Your task to perform on an android device: Open accessibility settings Image 0: 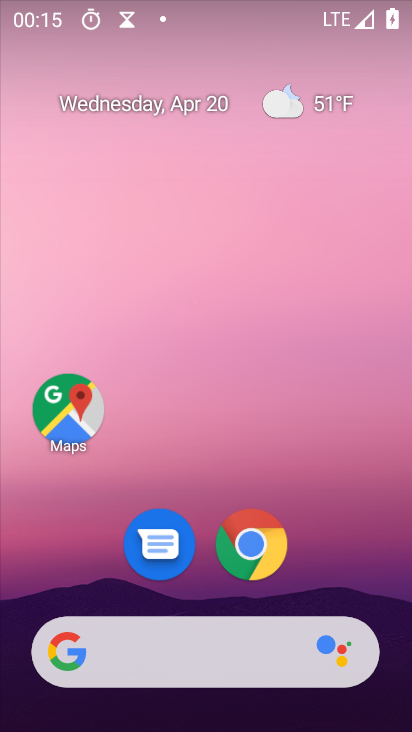
Step 0: drag from (330, 578) to (349, 74)
Your task to perform on an android device: Open accessibility settings Image 1: 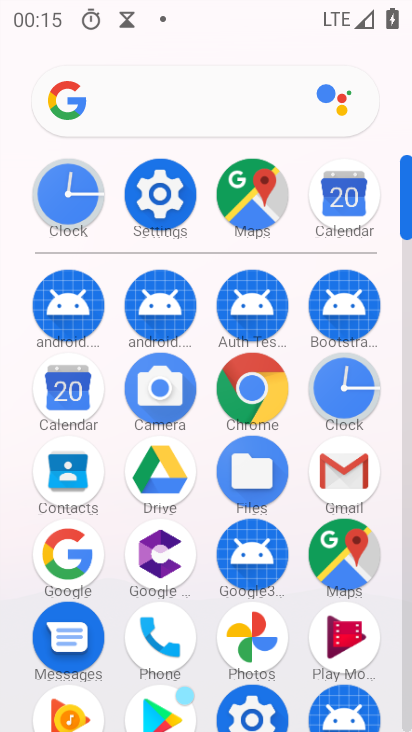
Step 1: click (144, 204)
Your task to perform on an android device: Open accessibility settings Image 2: 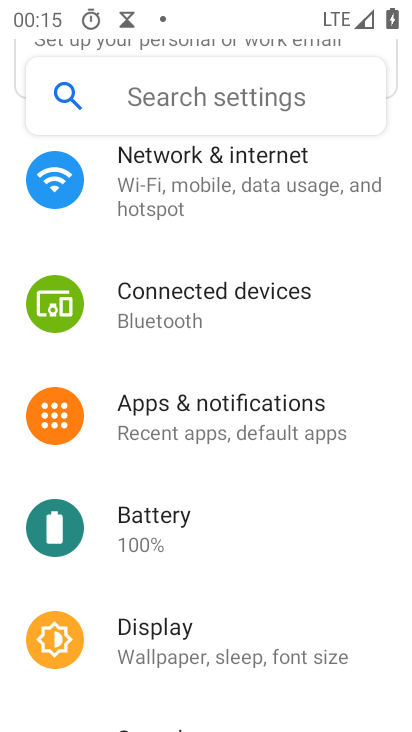
Step 2: drag from (199, 412) to (208, 359)
Your task to perform on an android device: Open accessibility settings Image 3: 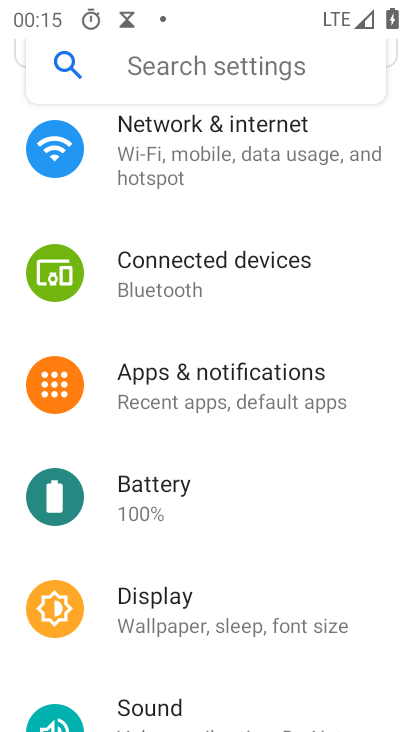
Step 3: drag from (216, 445) to (212, 394)
Your task to perform on an android device: Open accessibility settings Image 4: 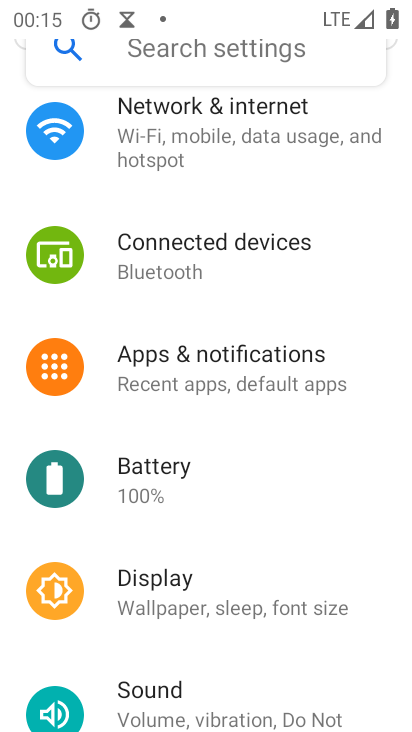
Step 4: drag from (219, 435) to (213, 372)
Your task to perform on an android device: Open accessibility settings Image 5: 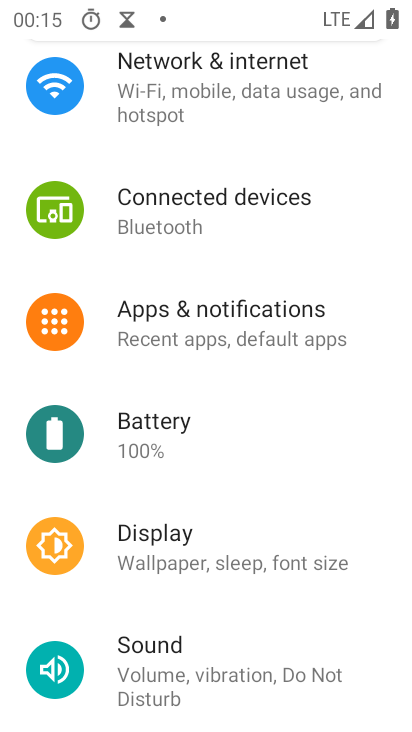
Step 5: drag from (208, 450) to (219, 386)
Your task to perform on an android device: Open accessibility settings Image 6: 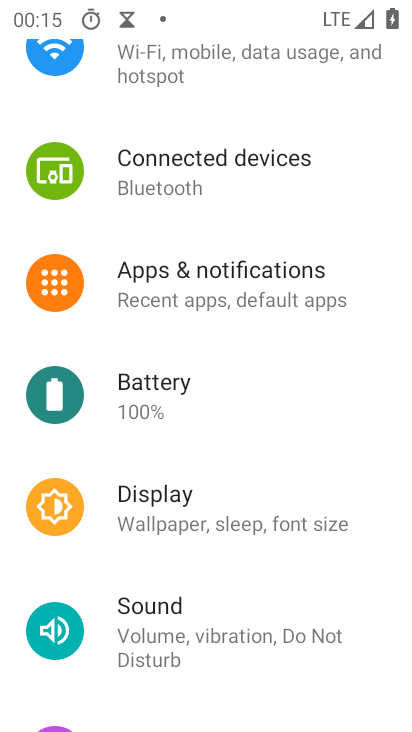
Step 6: drag from (195, 490) to (212, 430)
Your task to perform on an android device: Open accessibility settings Image 7: 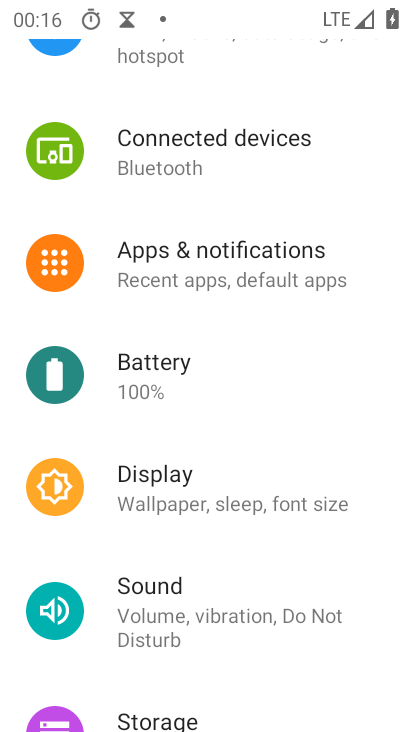
Step 7: drag from (209, 481) to (225, 417)
Your task to perform on an android device: Open accessibility settings Image 8: 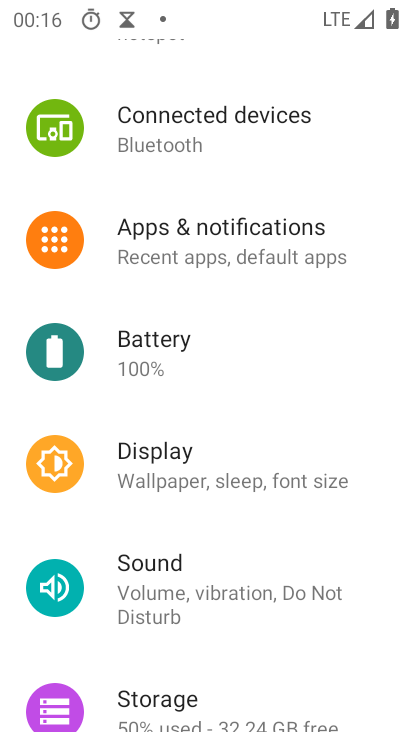
Step 8: drag from (209, 499) to (214, 423)
Your task to perform on an android device: Open accessibility settings Image 9: 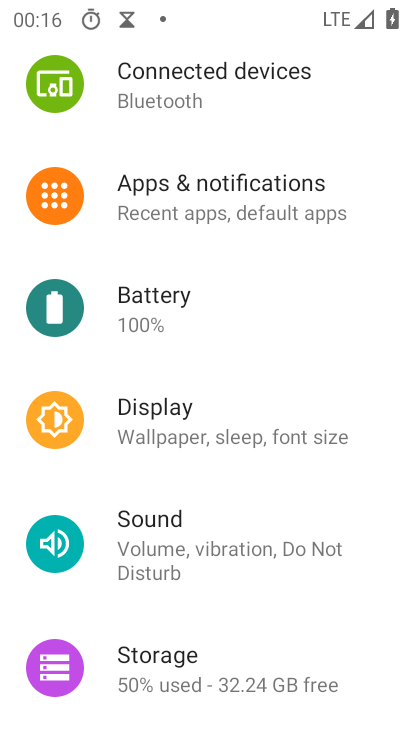
Step 9: drag from (122, 546) to (174, 397)
Your task to perform on an android device: Open accessibility settings Image 10: 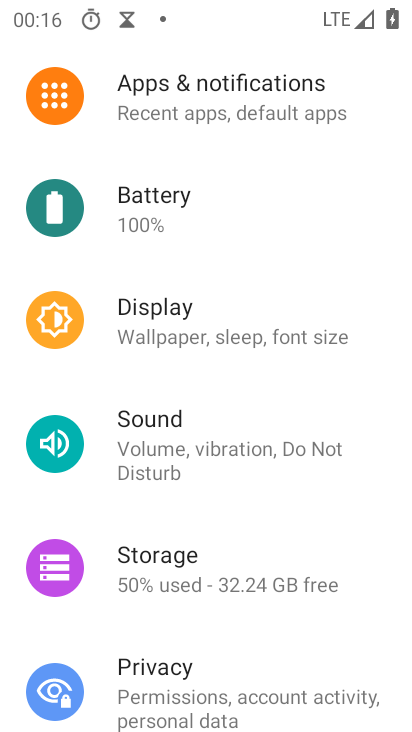
Step 10: drag from (204, 488) to (231, 383)
Your task to perform on an android device: Open accessibility settings Image 11: 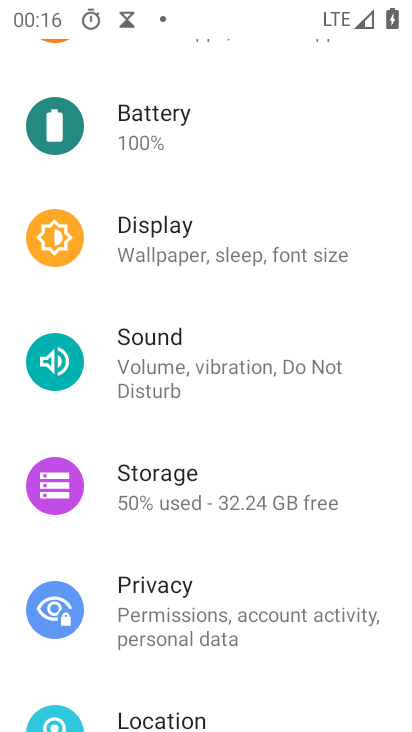
Step 11: drag from (269, 535) to (280, 435)
Your task to perform on an android device: Open accessibility settings Image 12: 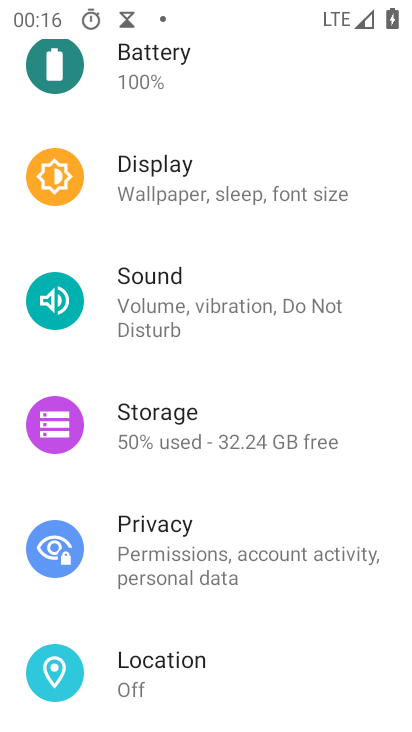
Step 12: drag from (270, 544) to (286, 442)
Your task to perform on an android device: Open accessibility settings Image 13: 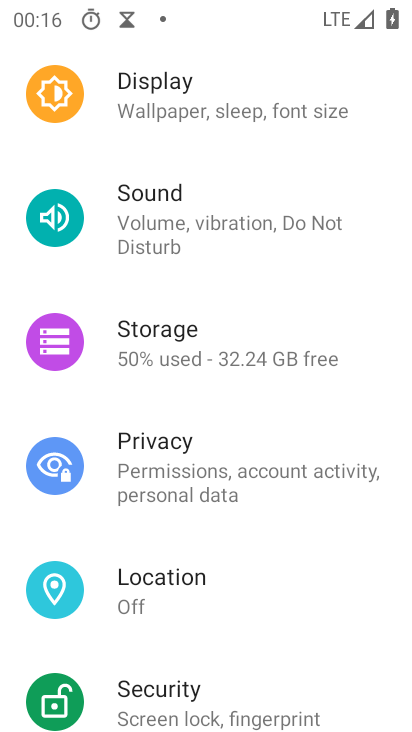
Step 13: drag from (260, 534) to (264, 441)
Your task to perform on an android device: Open accessibility settings Image 14: 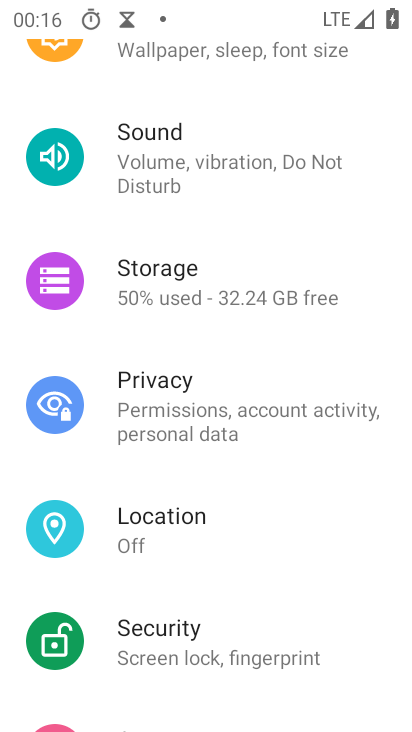
Step 14: drag from (263, 537) to (272, 460)
Your task to perform on an android device: Open accessibility settings Image 15: 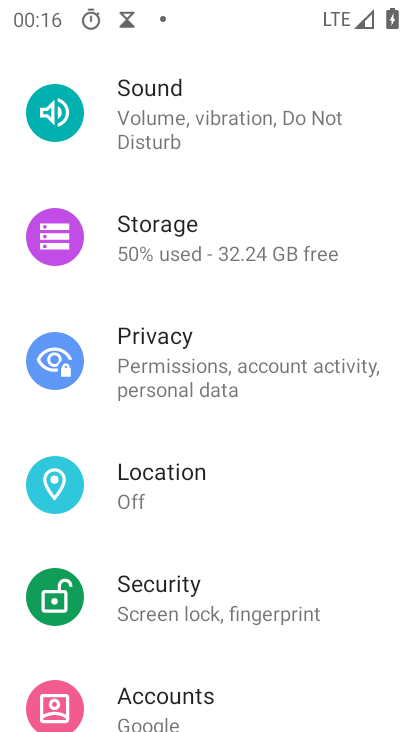
Step 15: drag from (281, 537) to (288, 455)
Your task to perform on an android device: Open accessibility settings Image 16: 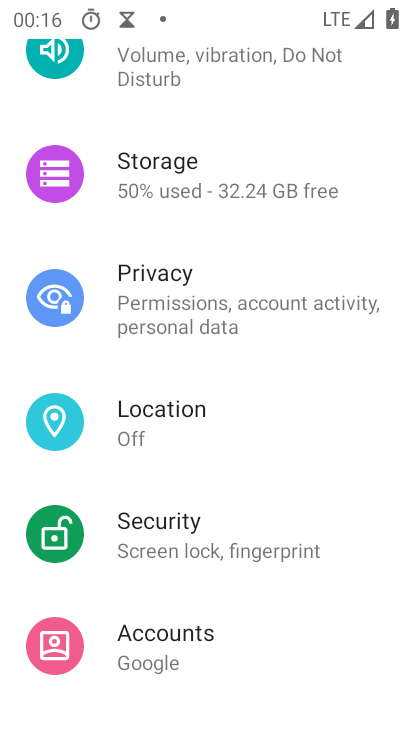
Step 16: drag from (259, 516) to (262, 438)
Your task to perform on an android device: Open accessibility settings Image 17: 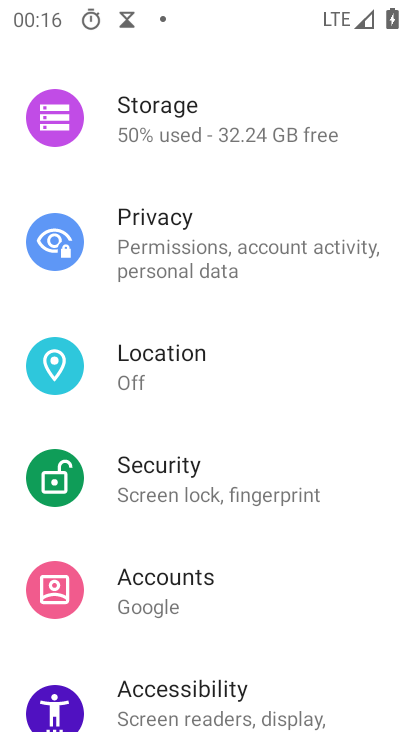
Step 17: drag from (262, 550) to (263, 441)
Your task to perform on an android device: Open accessibility settings Image 18: 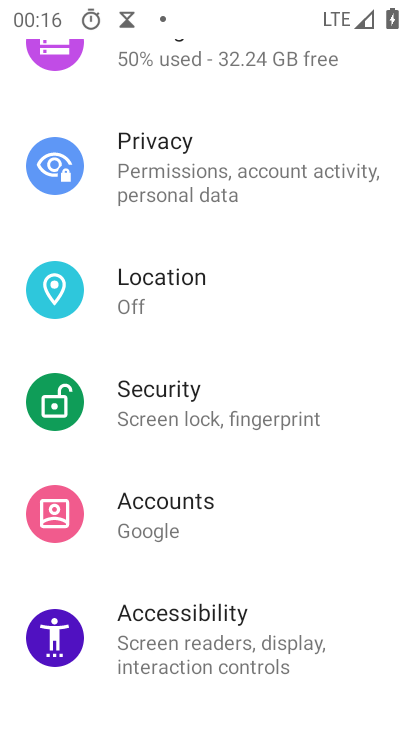
Step 18: click (265, 638)
Your task to perform on an android device: Open accessibility settings Image 19: 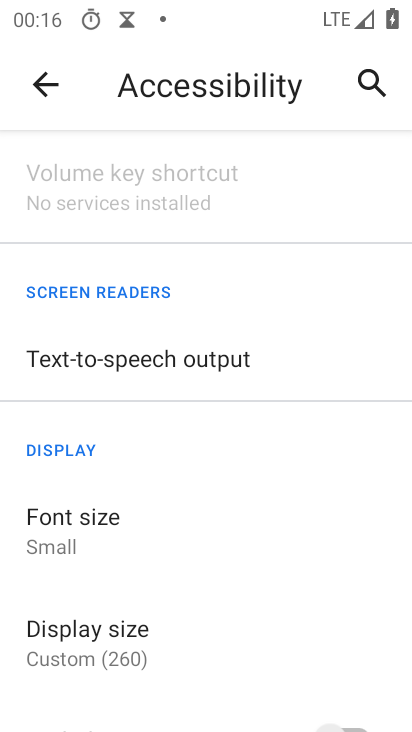
Step 19: task complete